Your task to perform on an android device: see tabs open on other devices in the chrome app Image 0: 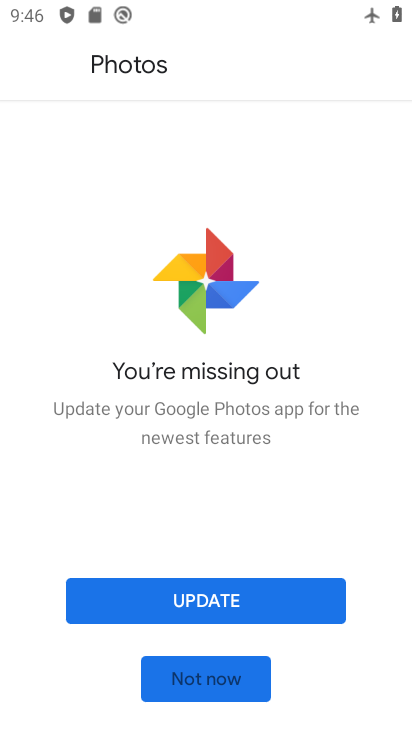
Step 0: press back button
Your task to perform on an android device: see tabs open on other devices in the chrome app Image 1: 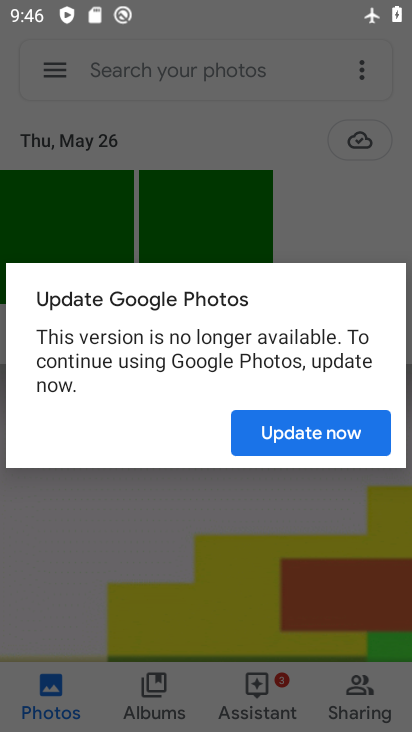
Step 1: press home button
Your task to perform on an android device: see tabs open on other devices in the chrome app Image 2: 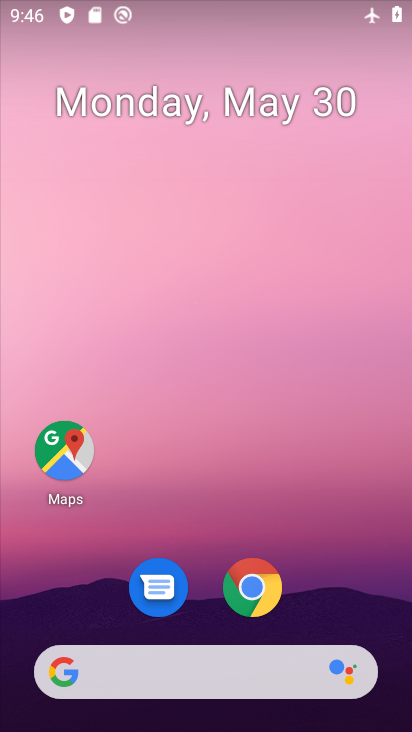
Step 2: drag from (357, 593) to (276, 80)
Your task to perform on an android device: see tabs open on other devices in the chrome app Image 3: 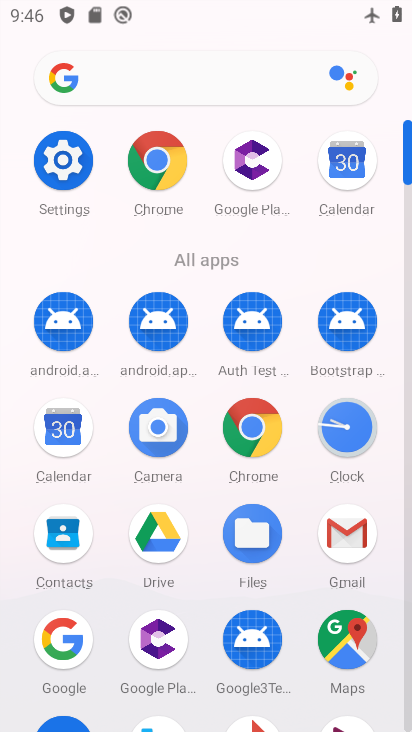
Step 3: click (157, 155)
Your task to perform on an android device: see tabs open on other devices in the chrome app Image 4: 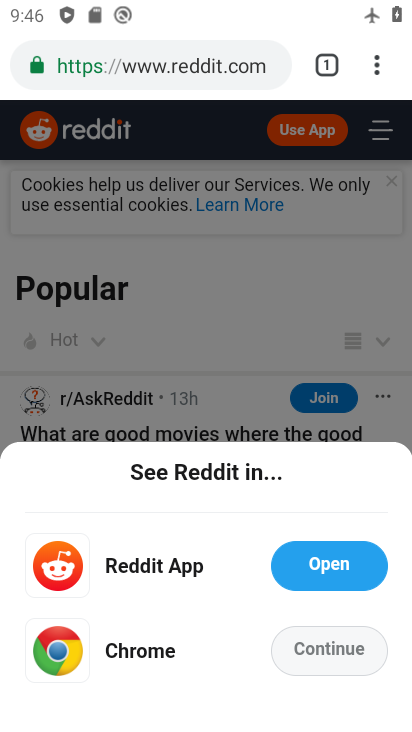
Step 4: task complete